Your task to perform on an android device: check out phone information Image 0: 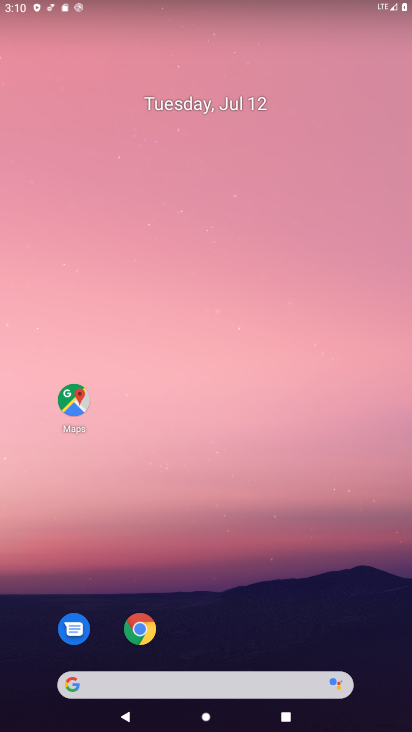
Step 0: drag from (271, 629) to (214, 30)
Your task to perform on an android device: check out phone information Image 1: 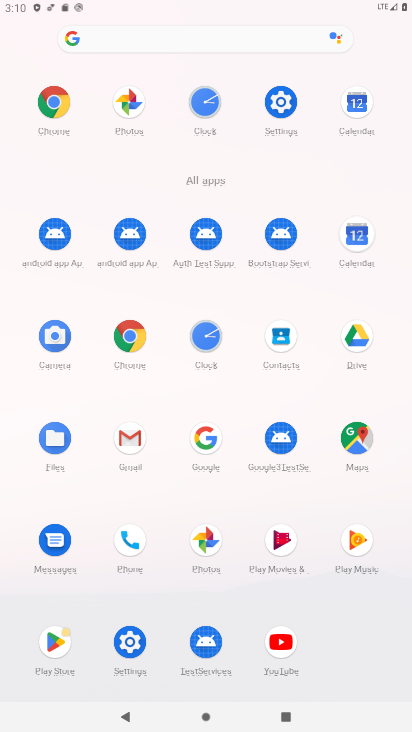
Step 1: click (275, 105)
Your task to perform on an android device: check out phone information Image 2: 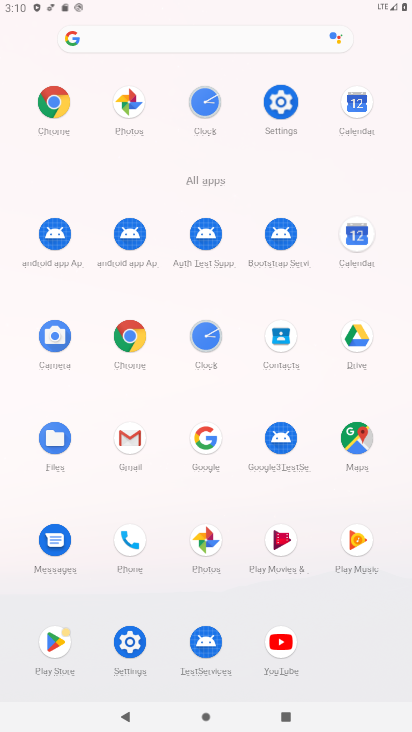
Step 2: click (276, 104)
Your task to perform on an android device: check out phone information Image 3: 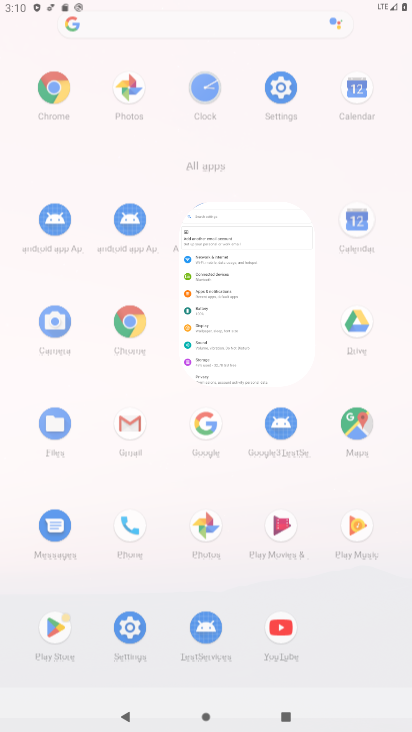
Step 3: click (276, 104)
Your task to perform on an android device: check out phone information Image 4: 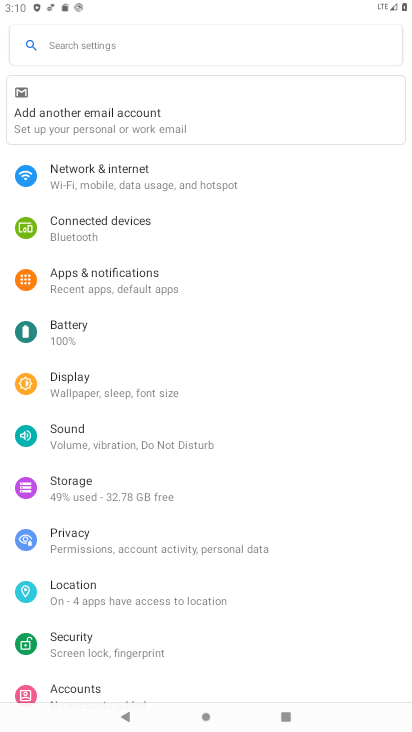
Step 4: drag from (104, 588) to (118, 203)
Your task to perform on an android device: check out phone information Image 5: 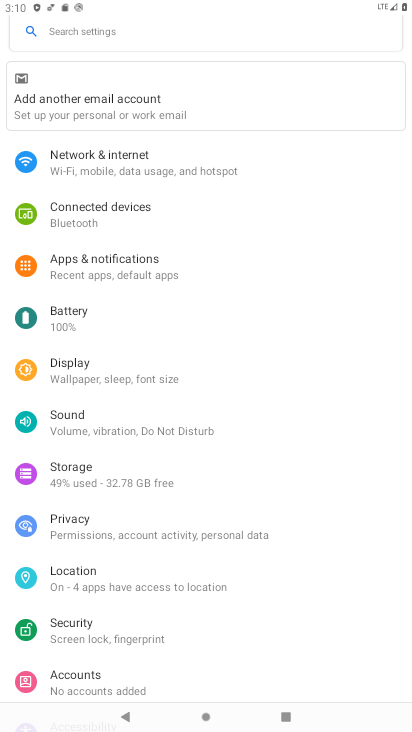
Step 5: click (98, 571)
Your task to perform on an android device: check out phone information Image 6: 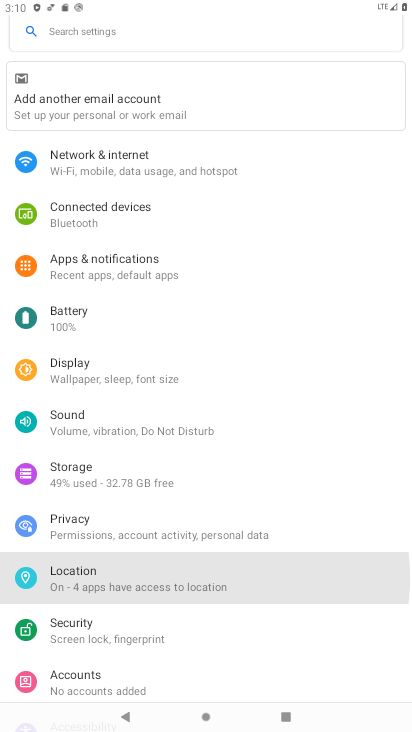
Step 6: click (97, 574)
Your task to perform on an android device: check out phone information Image 7: 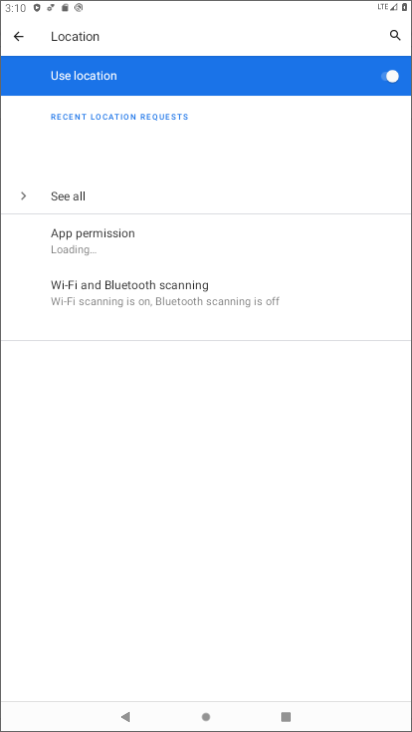
Step 7: click (97, 574)
Your task to perform on an android device: check out phone information Image 8: 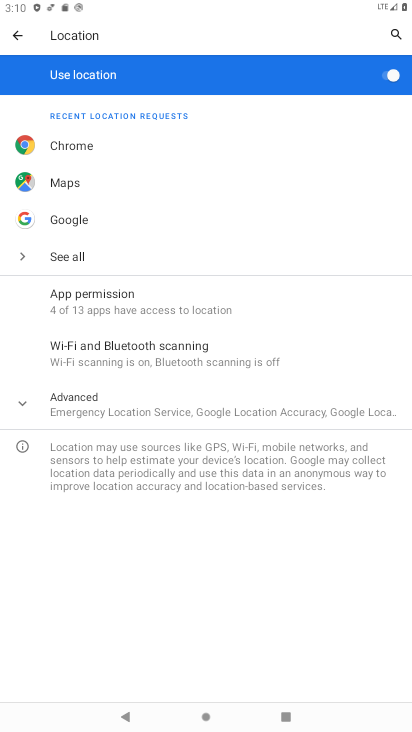
Step 8: click (108, 304)
Your task to perform on an android device: check out phone information Image 9: 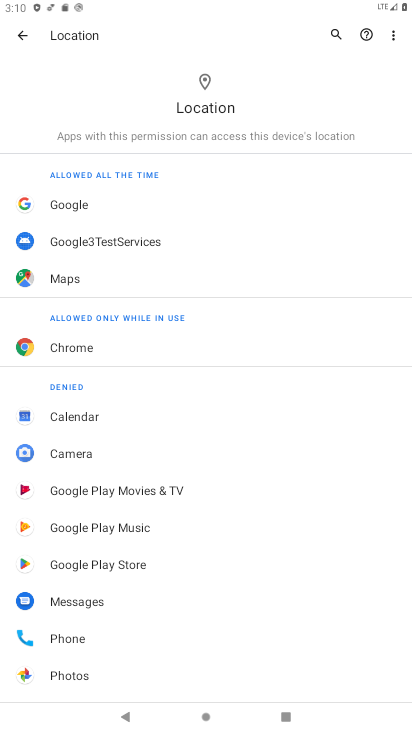
Step 9: task complete